Your task to perform on an android device: Search for "apple airpods pro" on target.com, select the first entry, add it to the cart, then select checkout. Image 0: 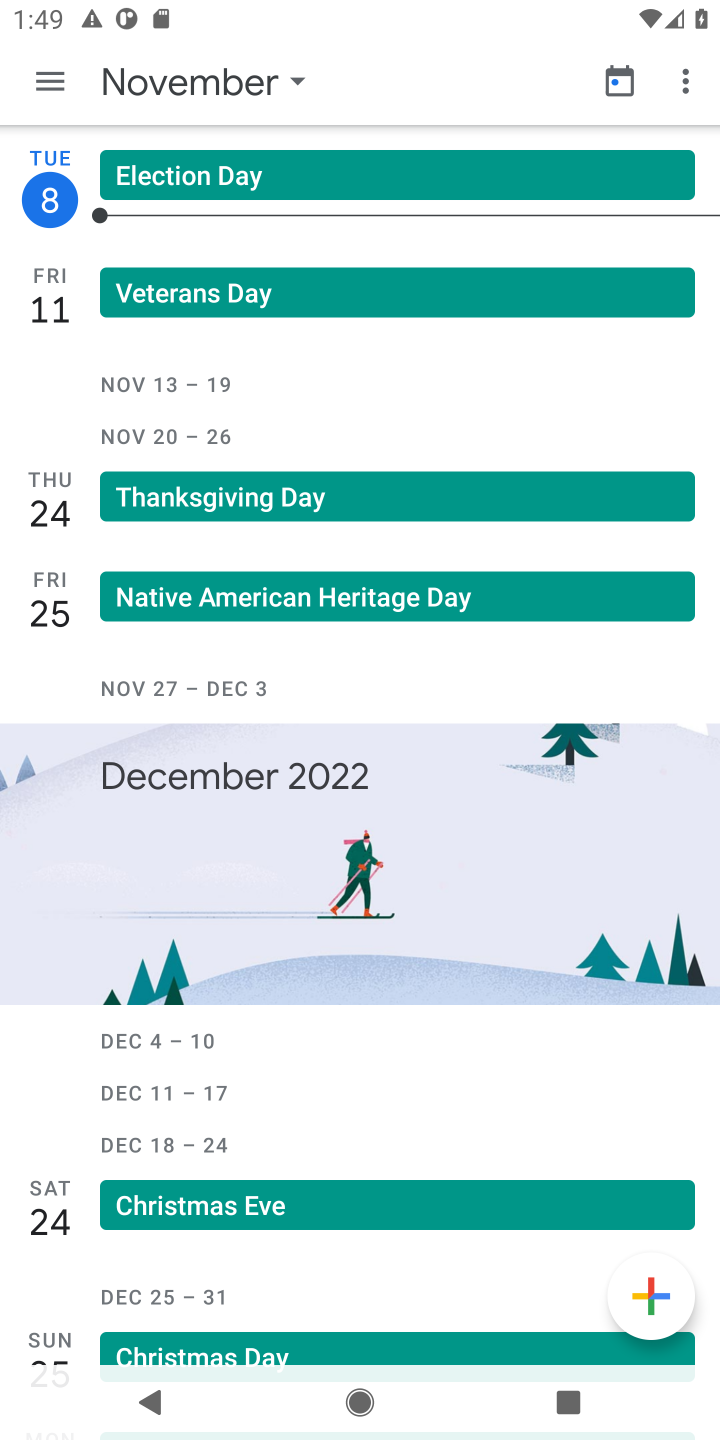
Step 0: press home button
Your task to perform on an android device: Search for "apple airpods pro" on target.com, select the first entry, add it to the cart, then select checkout. Image 1: 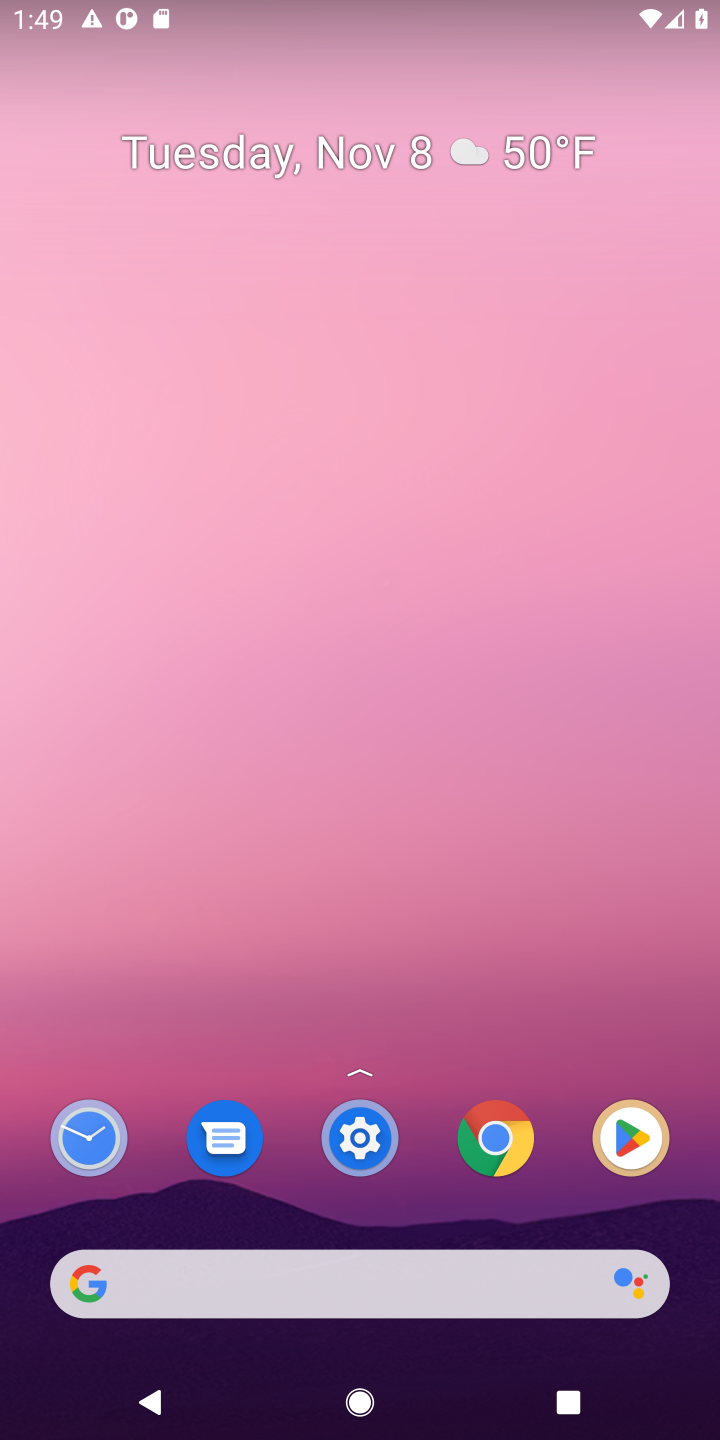
Step 1: click (288, 1280)
Your task to perform on an android device: Search for "apple airpods pro" on target.com, select the first entry, add it to the cart, then select checkout. Image 2: 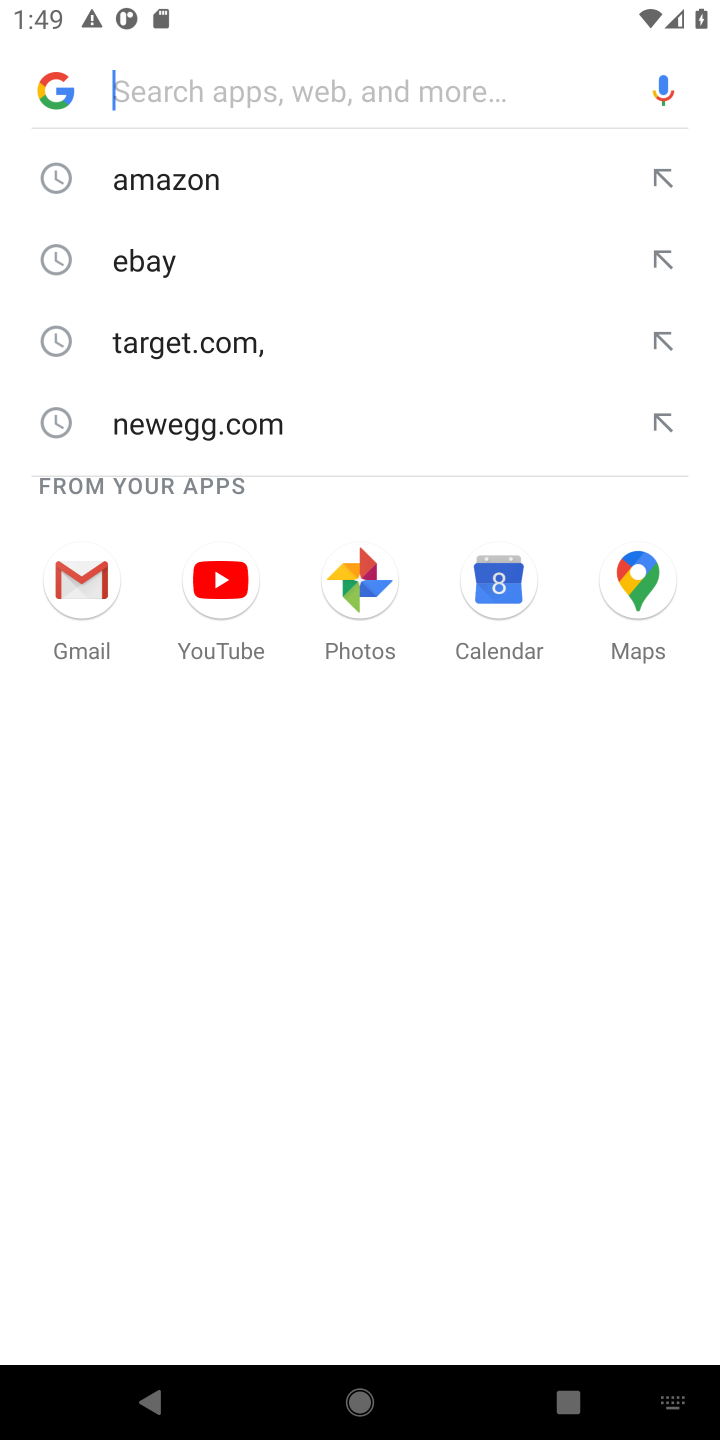
Step 2: click (236, 150)
Your task to perform on an android device: Search for "apple airpods pro" on target.com, select the first entry, add it to the cart, then select checkout. Image 3: 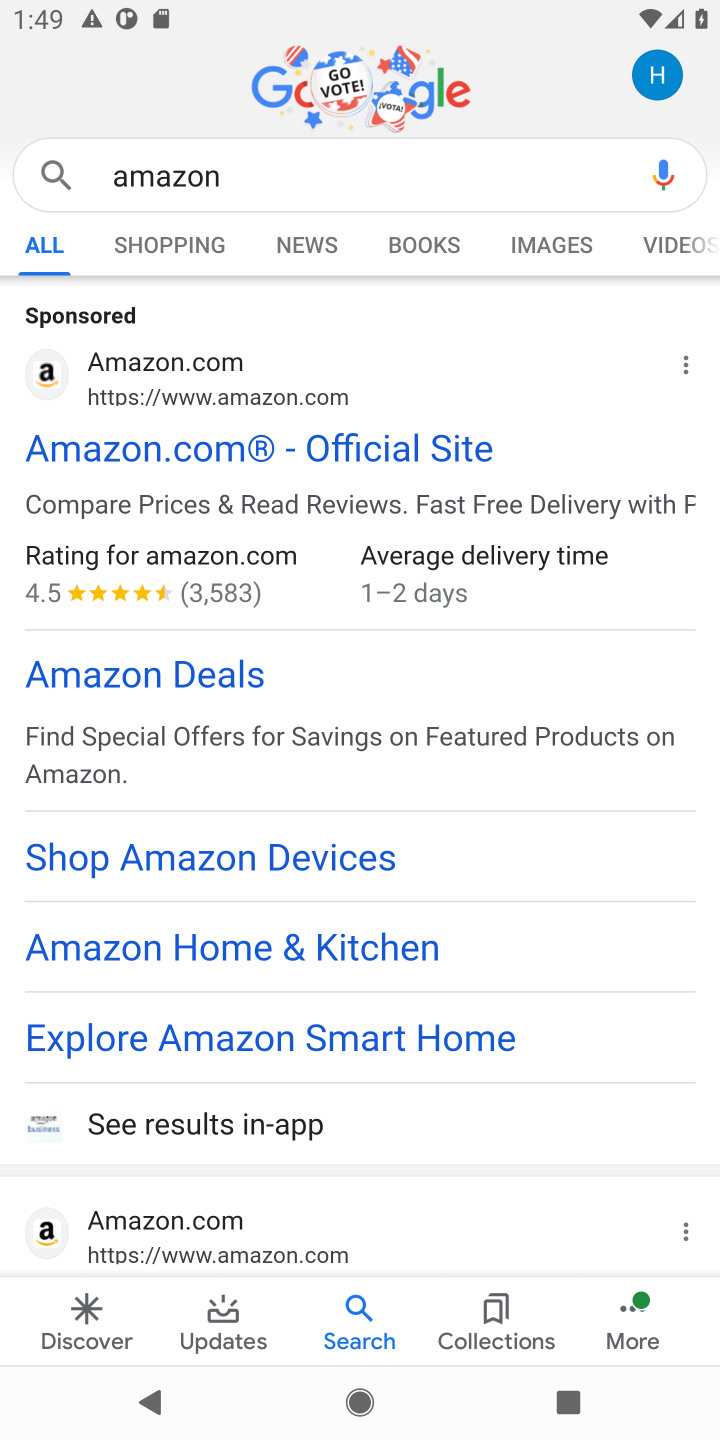
Step 3: press back button
Your task to perform on an android device: Search for "apple airpods pro" on target.com, select the first entry, add it to the cart, then select checkout. Image 4: 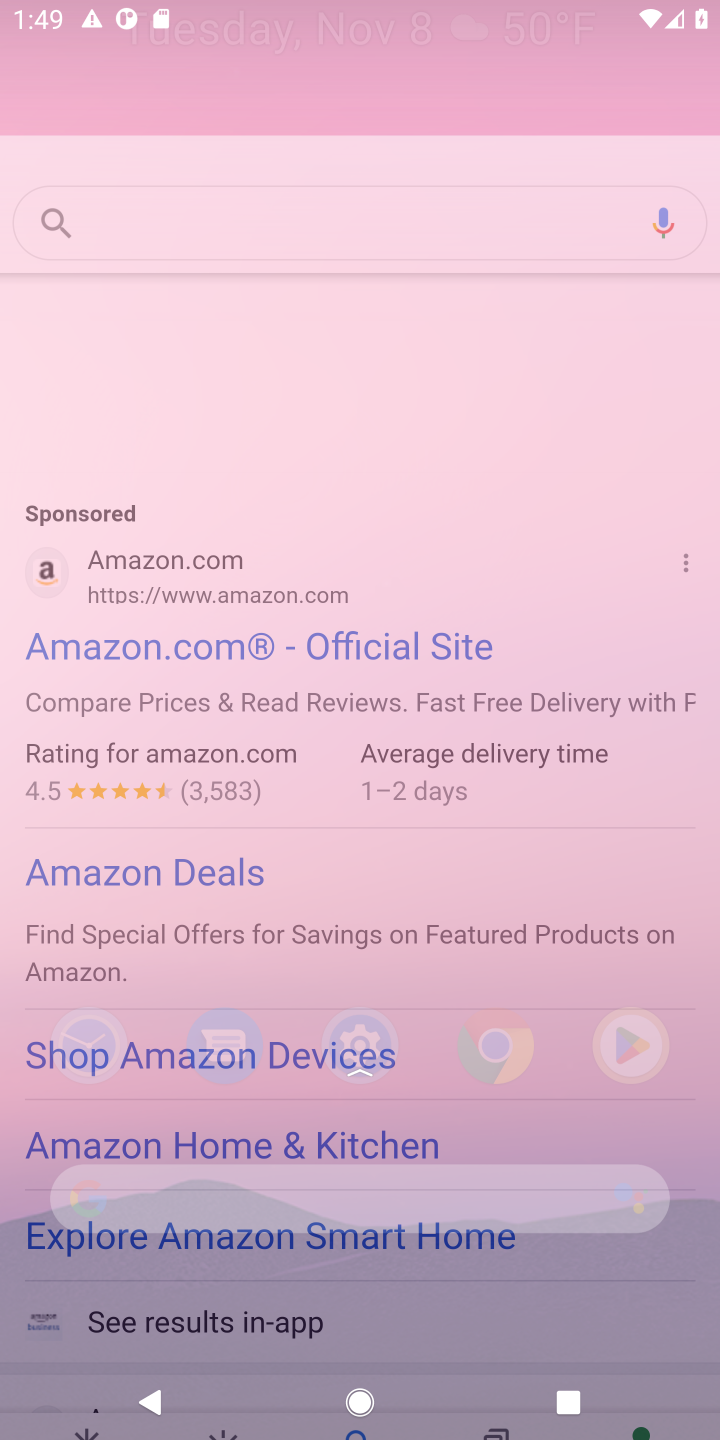
Step 4: click (308, 194)
Your task to perform on an android device: Search for "apple airpods pro" on target.com, select the first entry, add it to the cart, then select checkout. Image 5: 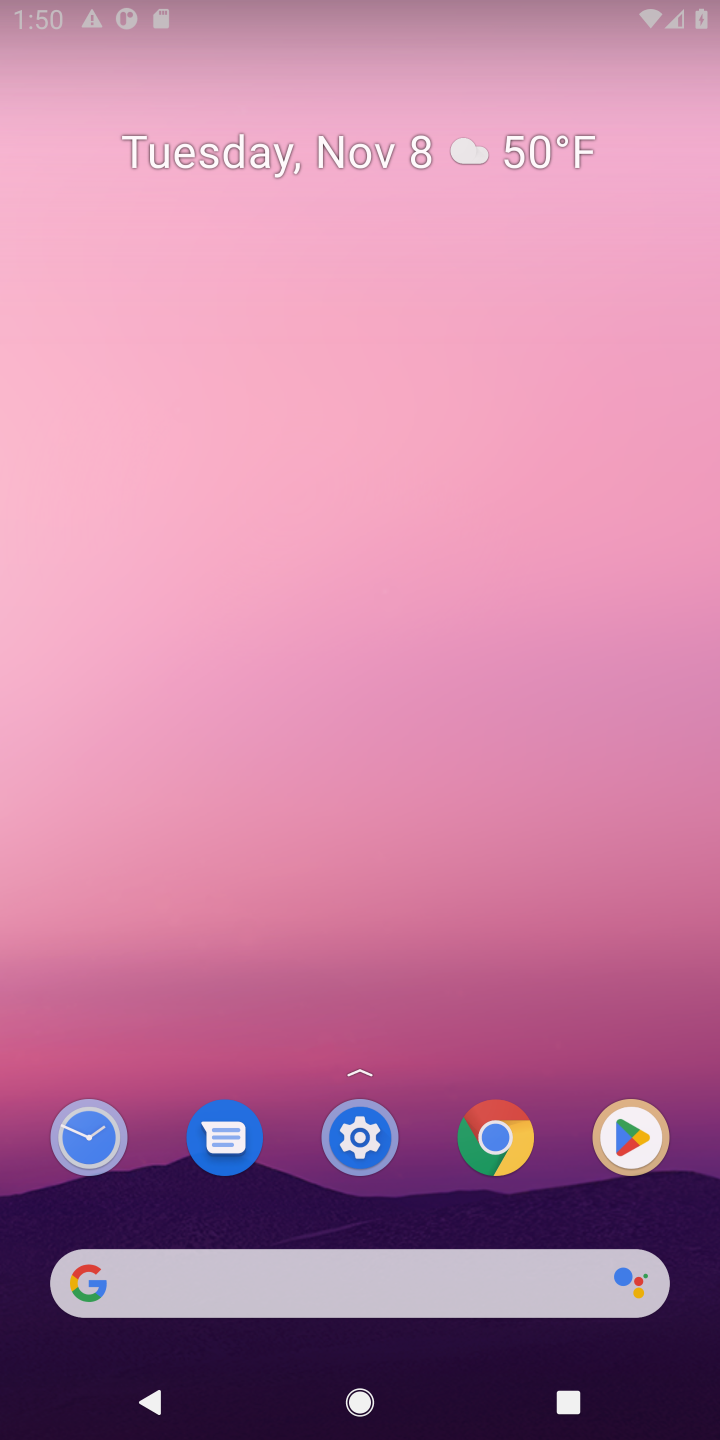
Step 5: click (493, 1146)
Your task to perform on an android device: Search for "apple airpods pro" on target.com, select the first entry, add it to the cart, then select checkout. Image 6: 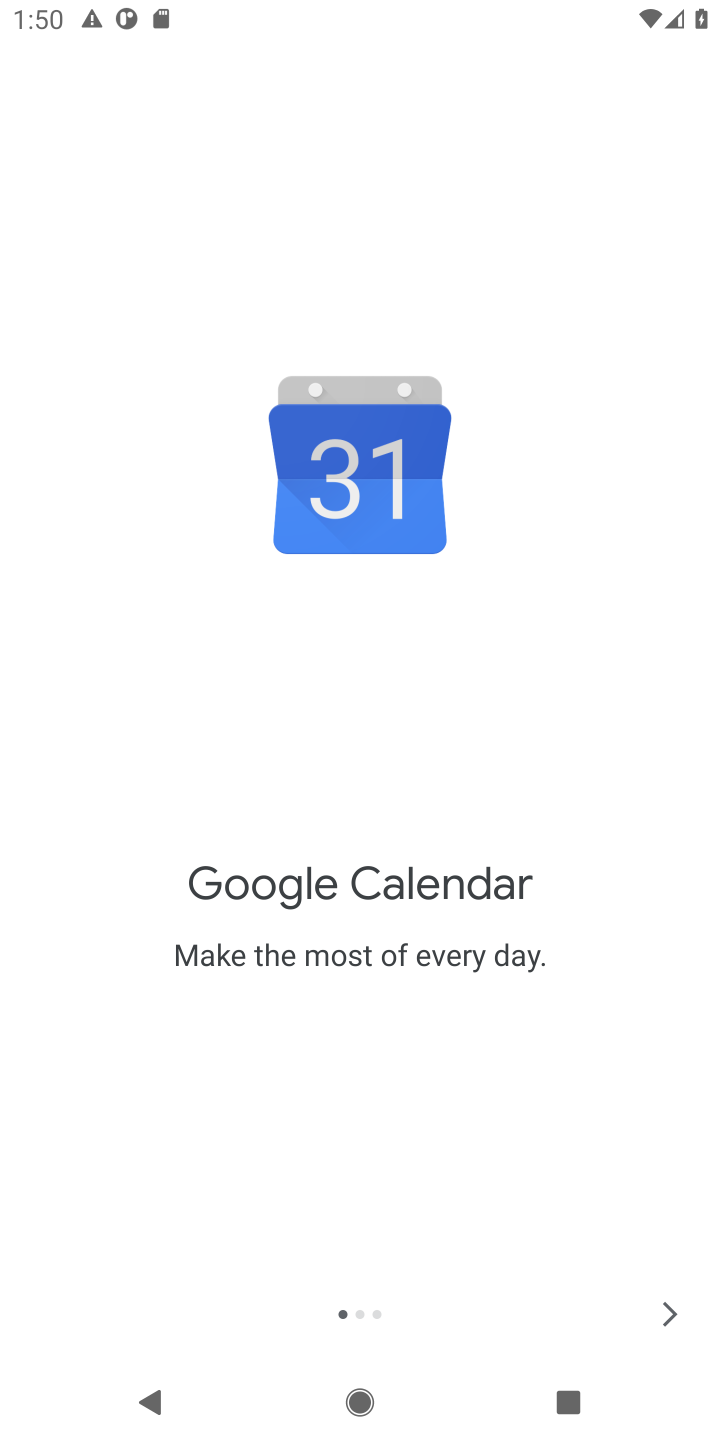
Step 6: press home button
Your task to perform on an android device: Search for "apple airpods pro" on target.com, select the first entry, add it to the cart, then select checkout. Image 7: 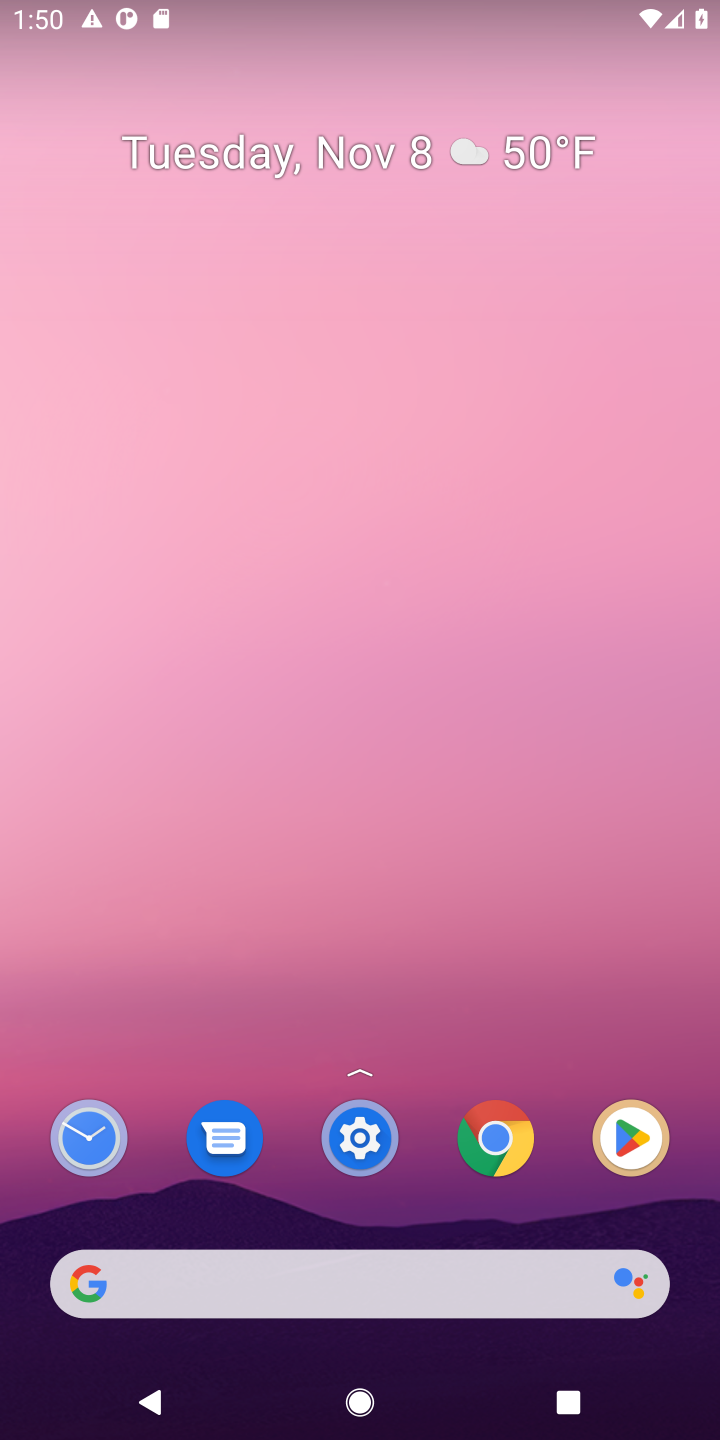
Step 7: click (328, 1286)
Your task to perform on an android device: Search for "apple airpods pro" on target.com, select the first entry, add it to the cart, then select checkout. Image 8: 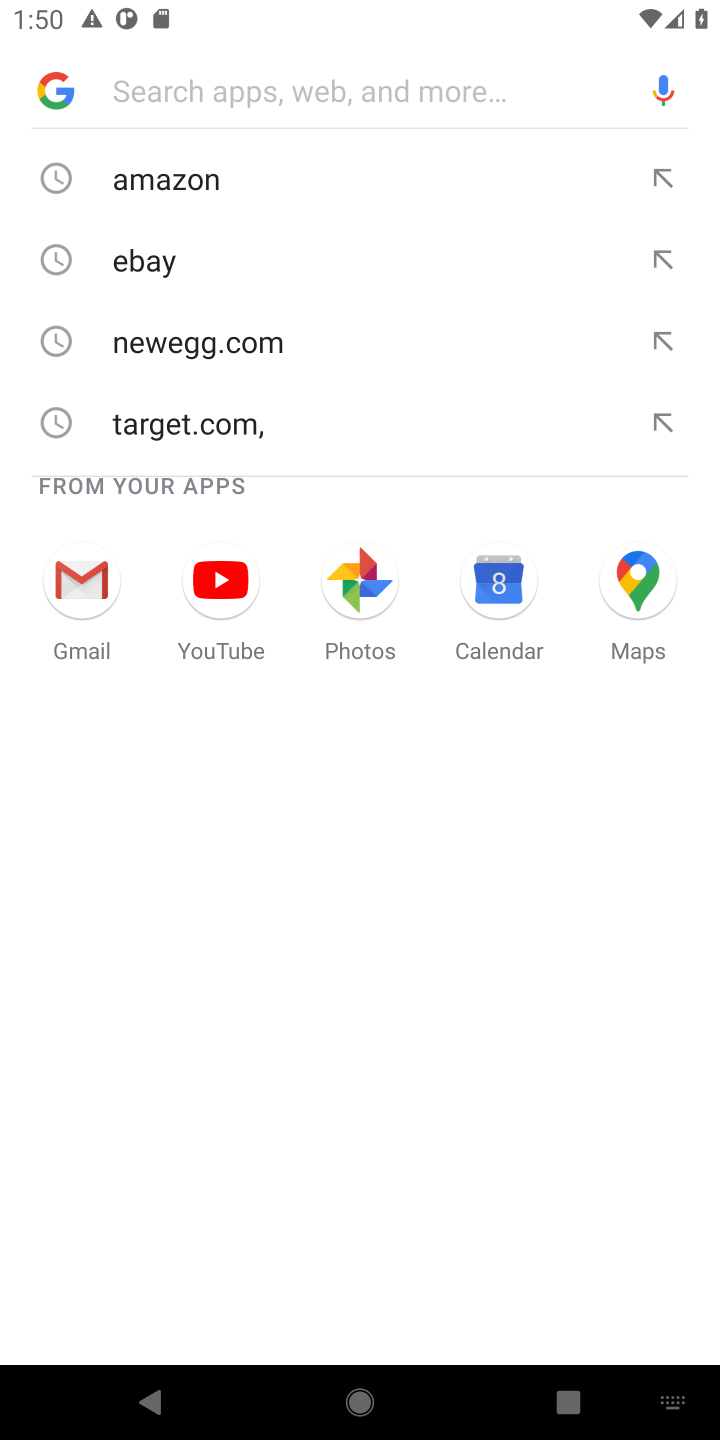
Step 8: type "target"
Your task to perform on an android device: Search for "apple airpods pro" on target.com, select the first entry, add it to the cart, then select checkout. Image 9: 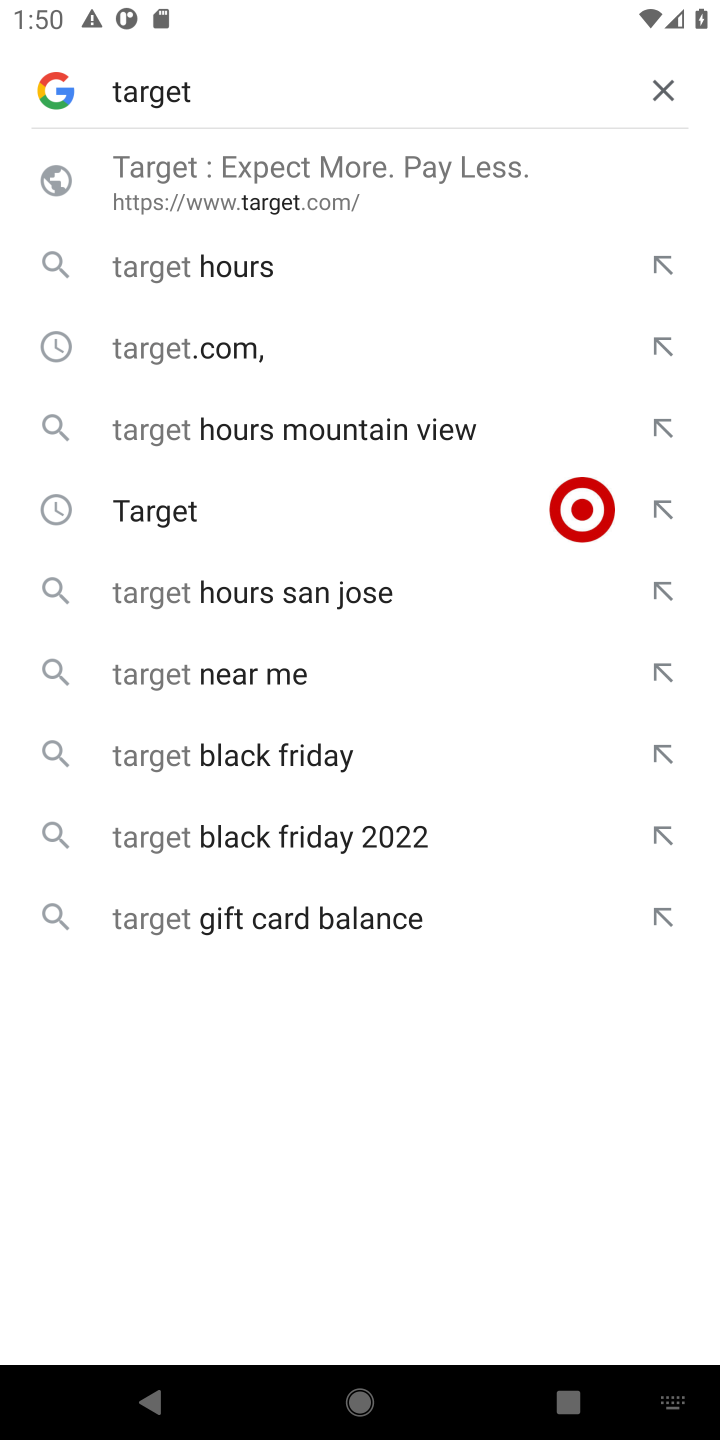
Step 9: click (253, 187)
Your task to perform on an android device: Search for "apple airpods pro" on target.com, select the first entry, add it to the cart, then select checkout. Image 10: 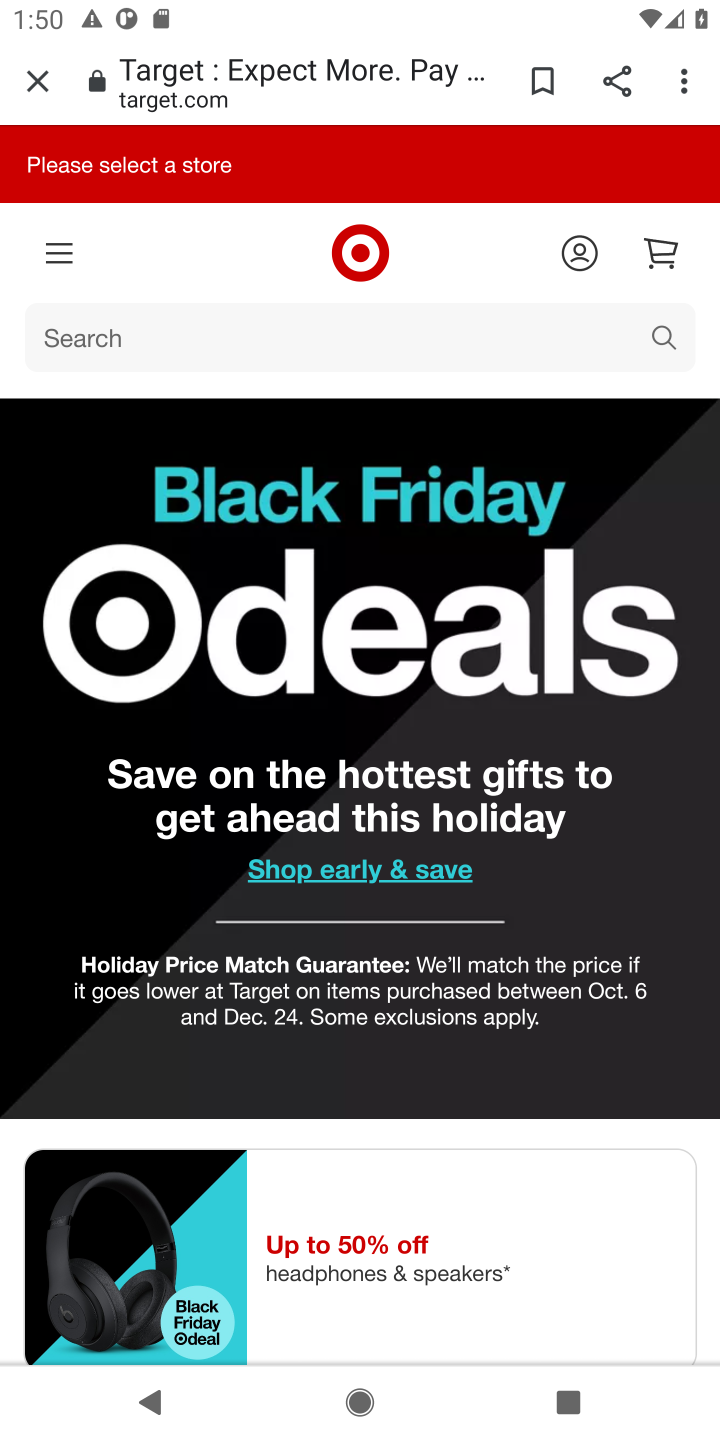
Step 10: task complete